Your task to perform on an android device: Empty the shopping cart on ebay. Search for "logitech g pro" on ebay, select the first entry, add it to the cart, then select checkout. Image 0: 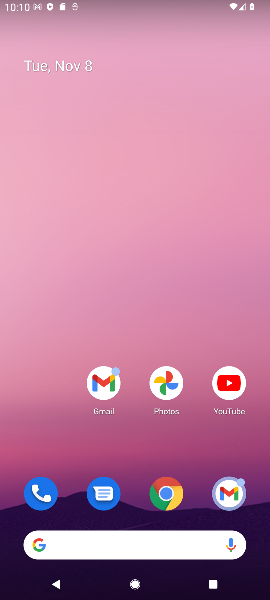
Step 0: click (170, 495)
Your task to perform on an android device: Empty the shopping cart on ebay. Search for "logitech g pro" on ebay, select the first entry, add it to the cart, then select checkout. Image 1: 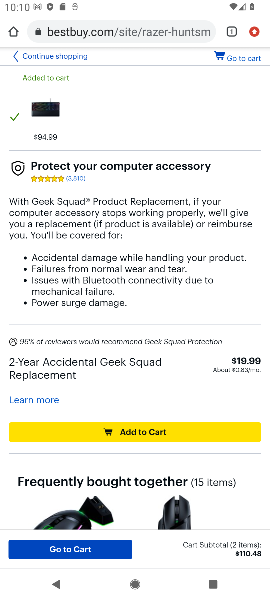
Step 1: click (93, 27)
Your task to perform on an android device: Empty the shopping cart on ebay. Search for "logitech g pro" on ebay, select the first entry, add it to the cart, then select checkout. Image 2: 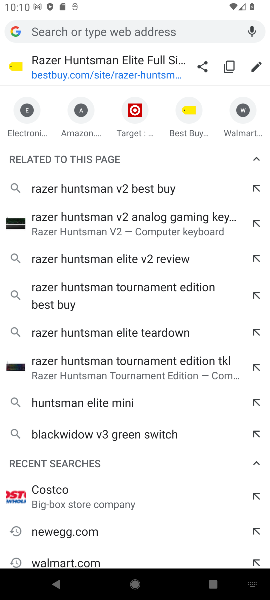
Step 2: type "ebay.com"
Your task to perform on an android device: Empty the shopping cart on ebay. Search for "logitech g pro" on ebay, select the first entry, add it to the cart, then select checkout. Image 3: 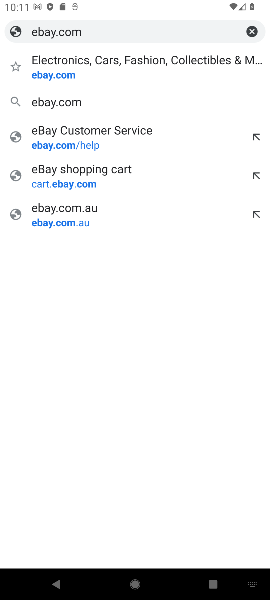
Step 3: click (45, 70)
Your task to perform on an android device: Empty the shopping cart on ebay. Search for "logitech g pro" on ebay, select the first entry, add it to the cart, then select checkout. Image 4: 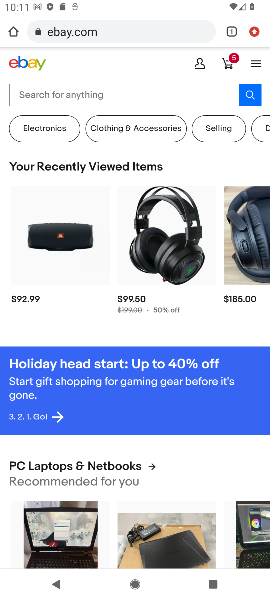
Step 4: click (226, 67)
Your task to perform on an android device: Empty the shopping cart on ebay. Search for "logitech g pro" on ebay, select the first entry, add it to the cart, then select checkout. Image 5: 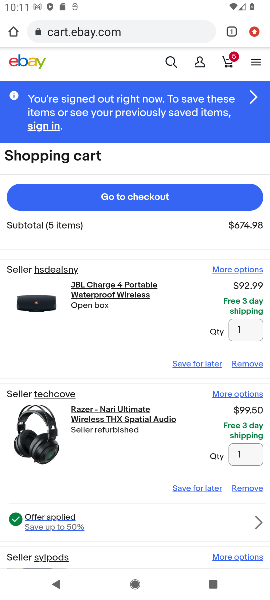
Step 5: click (249, 366)
Your task to perform on an android device: Empty the shopping cart on ebay. Search for "logitech g pro" on ebay, select the first entry, add it to the cart, then select checkout. Image 6: 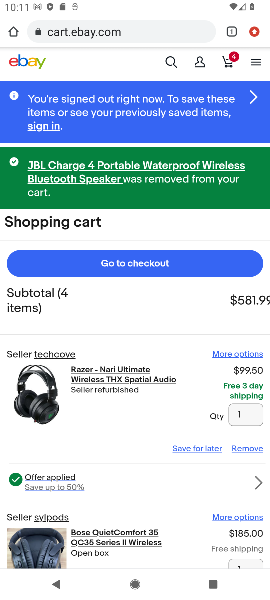
Step 6: click (243, 449)
Your task to perform on an android device: Empty the shopping cart on ebay. Search for "logitech g pro" on ebay, select the first entry, add it to the cart, then select checkout. Image 7: 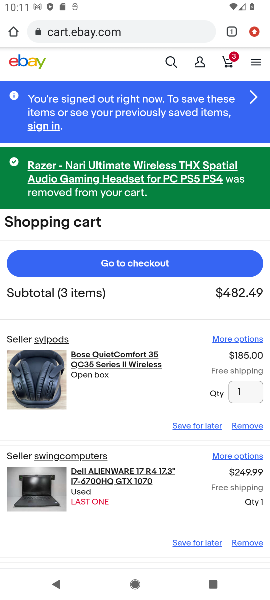
Step 7: click (247, 427)
Your task to perform on an android device: Empty the shopping cart on ebay. Search for "logitech g pro" on ebay, select the first entry, add it to the cart, then select checkout. Image 8: 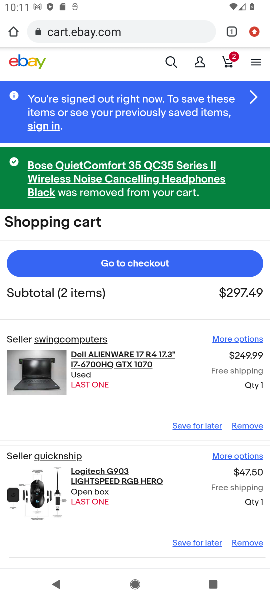
Step 8: click (243, 540)
Your task to perform on an android device: Empty the shopping cart on ebay. Search for "logitech g pro" on ebay, select the first entry, add it to the cart, then select checkout. Image 9: 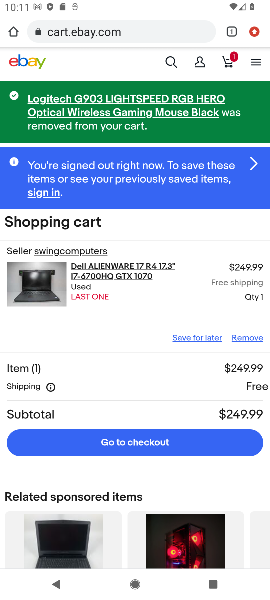
Step 9: click (246, 339)
Your task to perform on an android device: Empty the shopping cart on ebay. Search for "logitech g pro" on ebay, select the first entry, add it to the cart, then select checkout. Image 10: 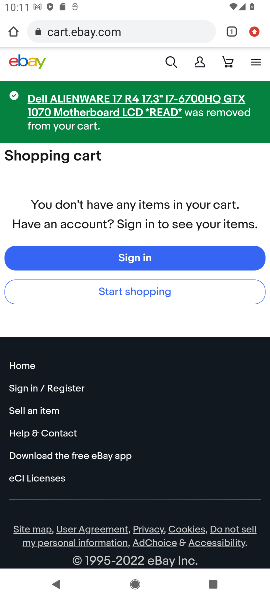
Step 10: click (171, 61)
Your task to perform on an android device: Empty the shopping cart on ebay. Search for "logitech g pro" on ebay, select the first entry, add it to the cart, then select checkout. Image 11: 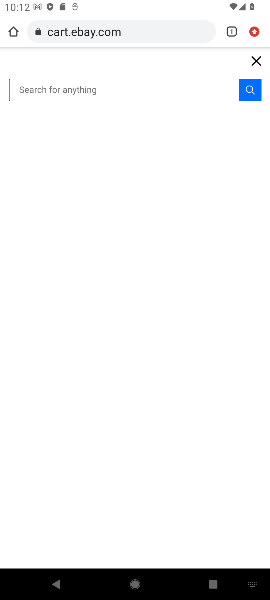
Step 11: type "logitech g pro"
Your task to perform on an android device: Empty the shopping cart on ebay. Search for "logitech g pro" on ebay, select the first entry, add it to the cart, then select checkout. Image 12: 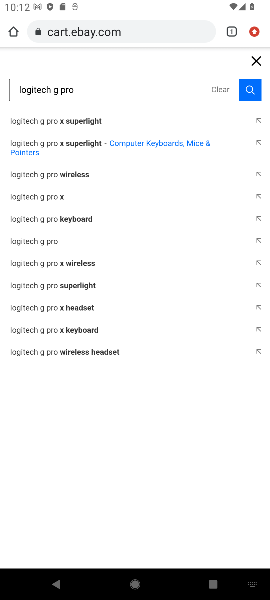
Step 12: click (249, 91)
Your task to perform on an android device: Empty the shopping cart on ebay. Search for "logitech g pro" on ebay, select the first entry, add it to the cart, then select checkout. Image 13: 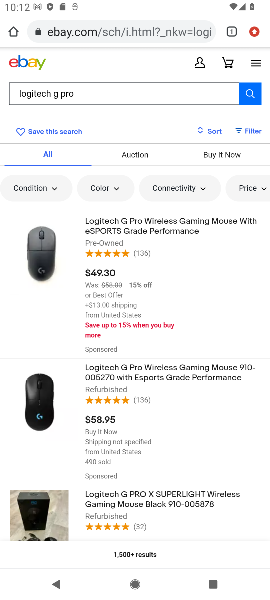
Step 13: click (79, 266)
Your task to perform on an android device: Empty the shopping cart on ebay. Search for "logitech g pro" on ebay, select the first entry, add it to the cart, then select checkout. Image 14: 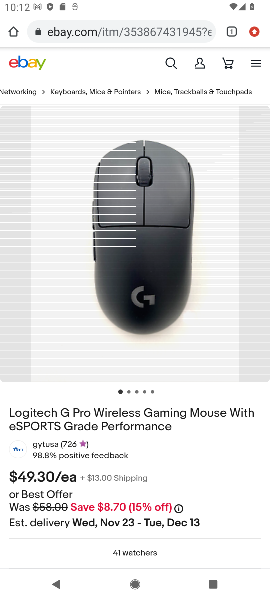
Step 14: drag from (140, 427) to (139, 209)
Your task to perform on an android device: Empty the shopping cart on ebay. Search for "logitech g pro" on ebay, select the first entry, add it to the cart, then select checkout. Image 15: 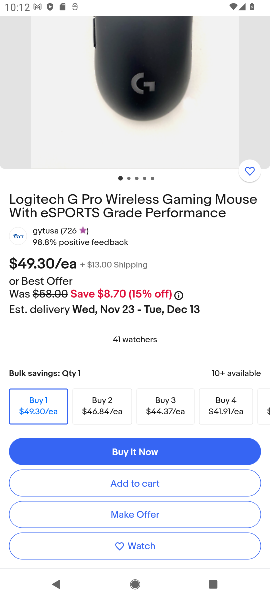
Step 15: click (121, 478)
Your task to perform on an android device: Empty the shopping cart on ebay. Search for "logitech g pro" on ebay, select the first entry, add it to the cart, then select checkout. Image 16: 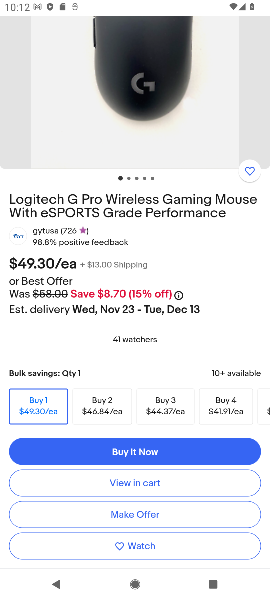
Step 16: click (121, 478)
Your task to perform on an android device: Empty the shopping cart on ebay. Search for "logitech g pro" on ebay, select the first entry, add it to the cart, then select checkout. Image 17: 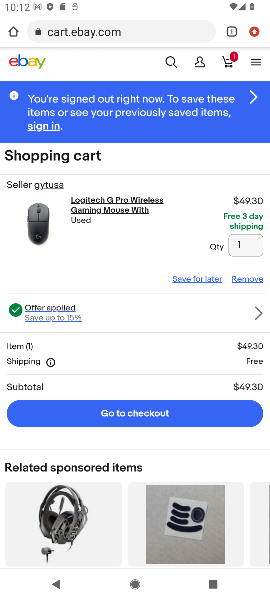
Step 17: click (132, 417)
Your task to perform on an android device: Empty the shopping cart on ebay. Search for "logitech g pro" on ebay, select the first entry, add it to the cart, then select checkout. Image 18: 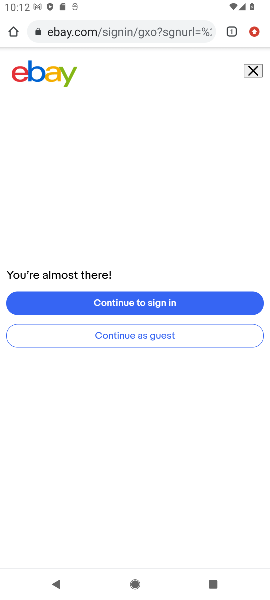
Step 18: task complete